Your task to perform on an android device: delete a single message in the gmail app Image 0: 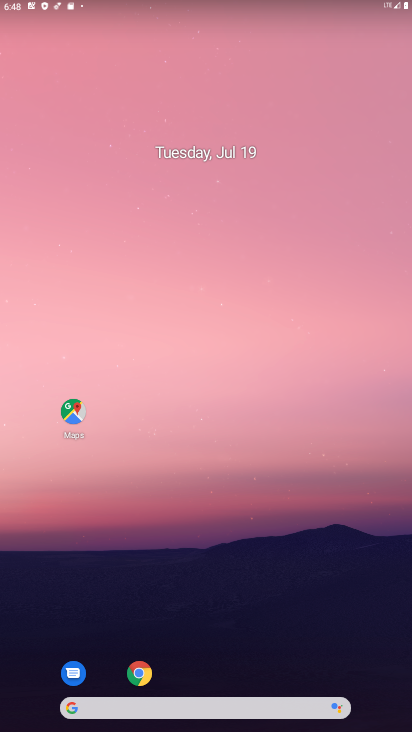
Step 0: drag from (378, 690) to (275, 40)
Your task to perform on an android device: delete a single message in the gmail app Image 1: 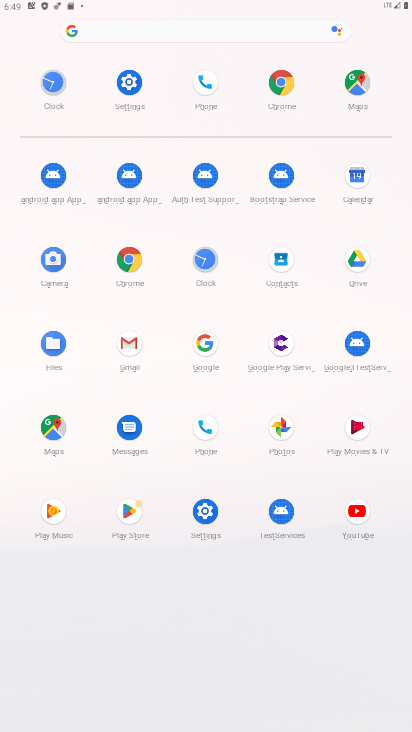
Step 1: click (126, 342)
Your task to perform on an android device: delete a single message in the gmail app Image 2: 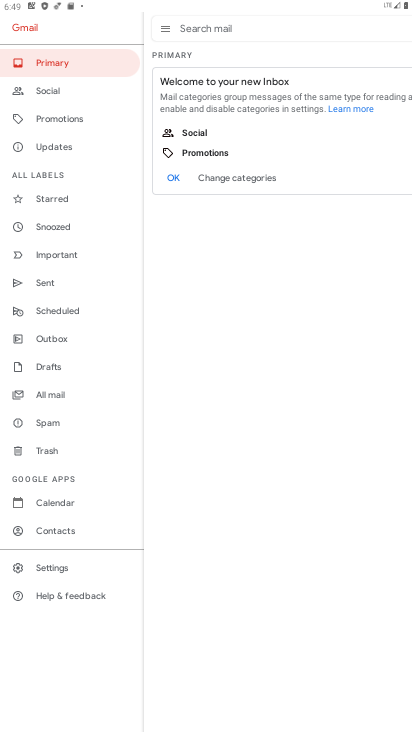
Step 2: task complete